Your task to perform on an android device: Open Google Chrome Image 0: 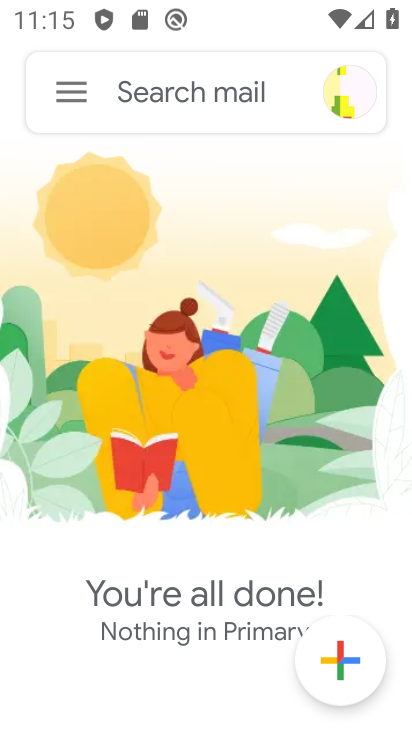
Step 0: press home button
Your task to perform on an android device: Open Google Chrome Image 1: 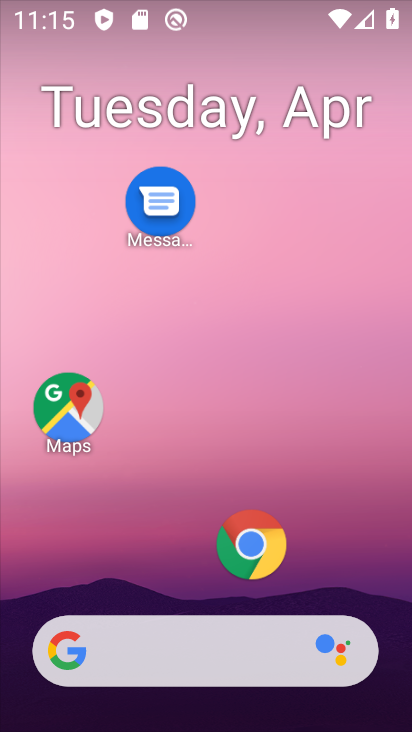
Step 1: click (268, 539)
Your task to perform on an android device: Open Google Chrome Image 2: 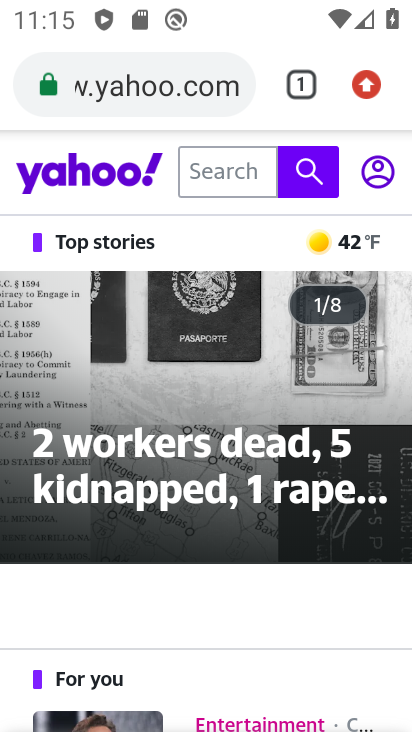
Step 2: task complete